Your task to perform on an android device: turn on the 12-hour format for clock Image 0: 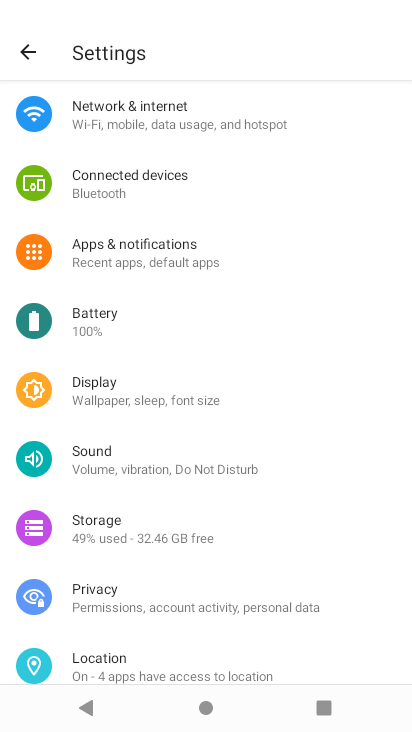
Step 0: press home button
Your task to perform on an android device: turn on the 12-hour format for clock Image 1: 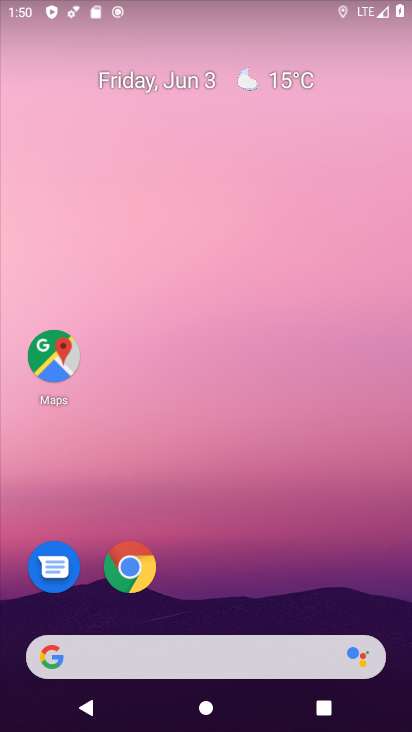
Step 1: drag from (199, 628) to (282, 20)
Your task to perform on an android device: turn on the 12-hour format for clock Image 2: 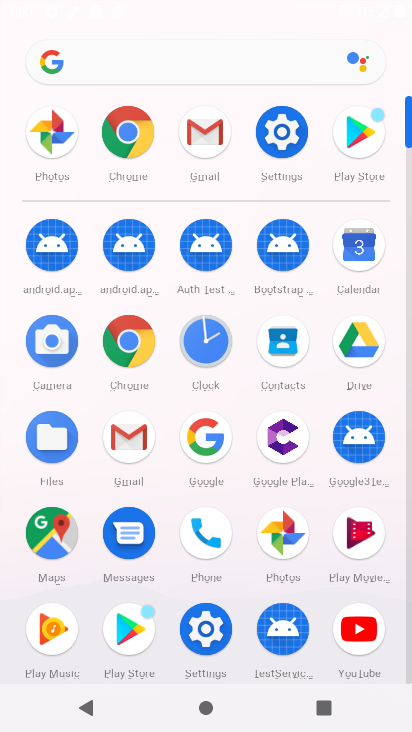
Step 2: click (218, 347)
Your task to perform on an android device: turn on the 12-hour format for clock Image 3: 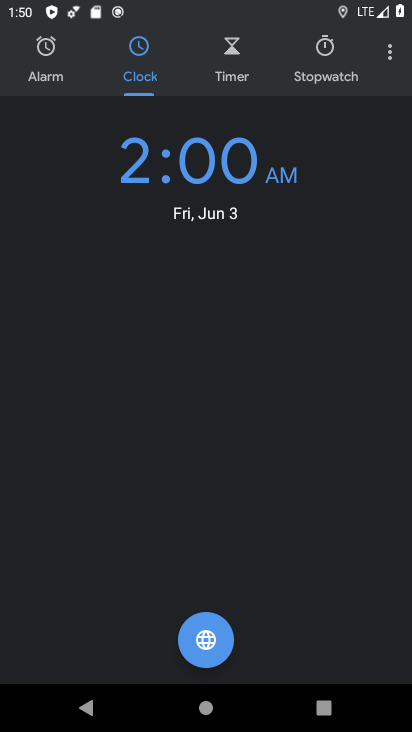
Step 3: click (384, 49)
Your task to perform on an android device: turn on the 12-hour format for clock Image 4: 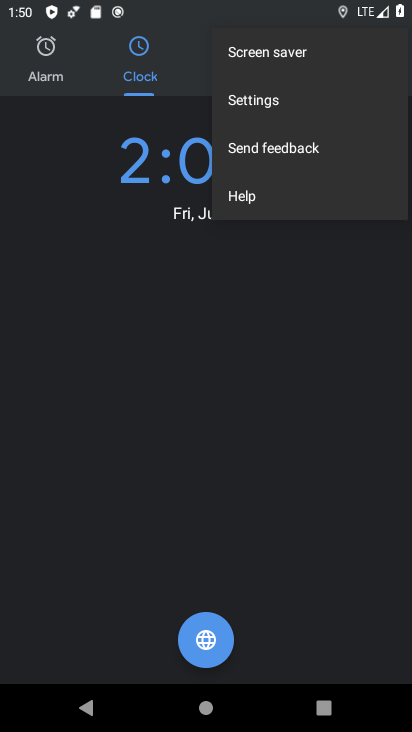
Step 4: click (267, 98)
Your task to perform on an android device: turn on the 12-hour format for clock Image 5: 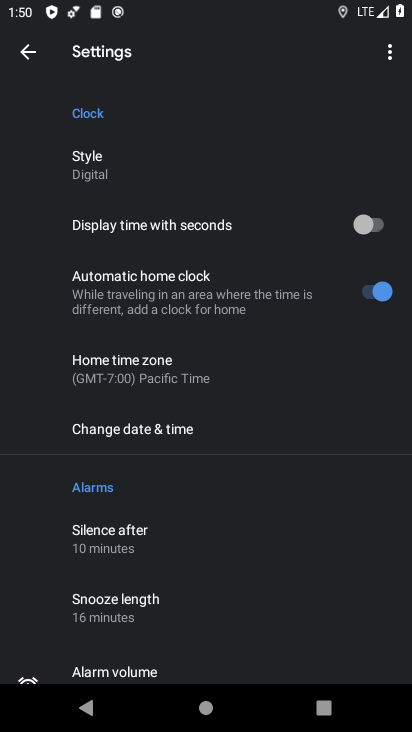
Step 5: click (124, 430)
Your task to perform on an android device: turn on the 12-hour format for clock Image 6: 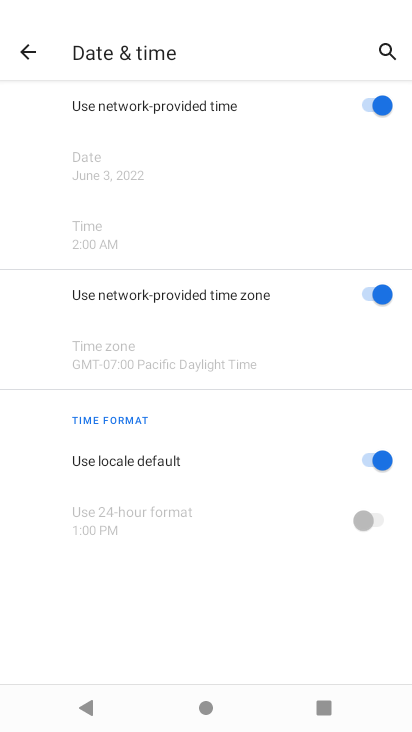
Step 6: task complete